Your task to perform on an android device: make emails show in primary in the gmail app Image 0: 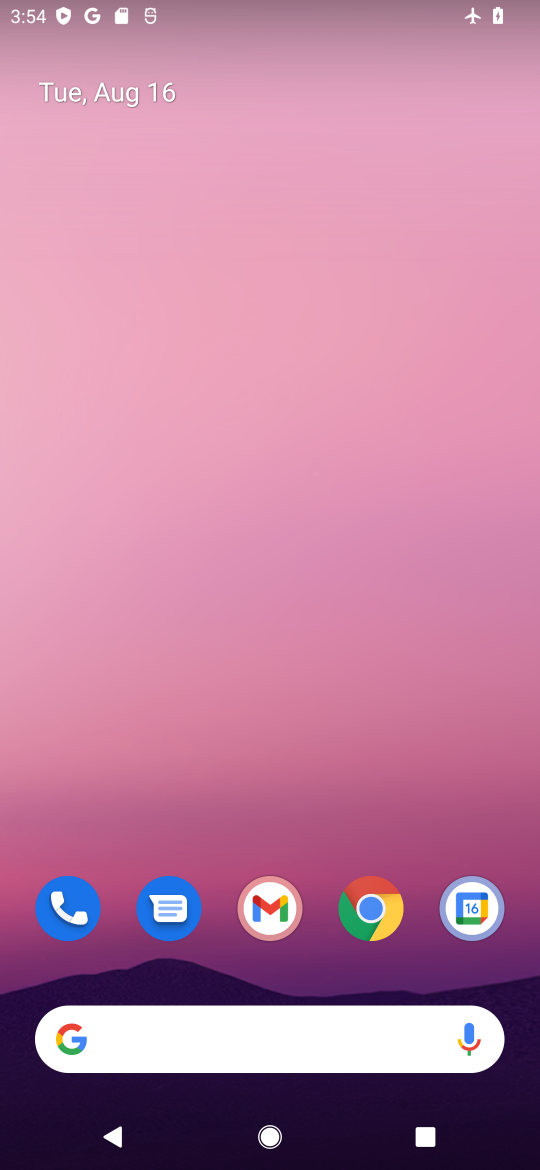
Step 0: click (283, 898)
Your task to perform on an android device: make emails show in primary in the gmail app Image 1: 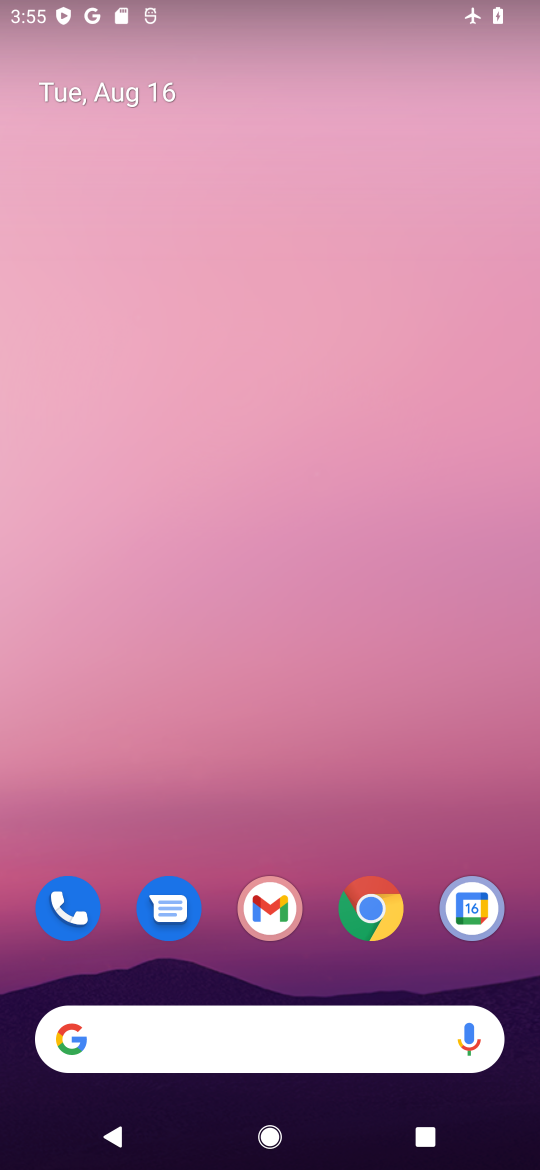
Step 1: click (282, 918)
Your task to perform on an android device: make emails show in primary in the gmail app Image 2: 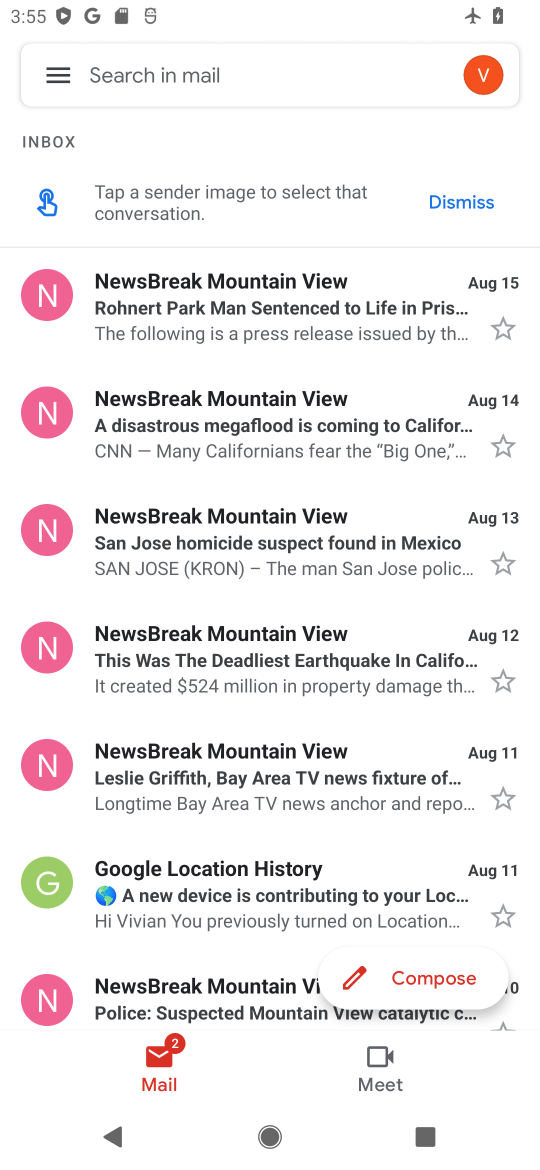
Step 2: click (56, 67)
Your task to perform on an android device: make emails show in primary in the gmail app Image 3: 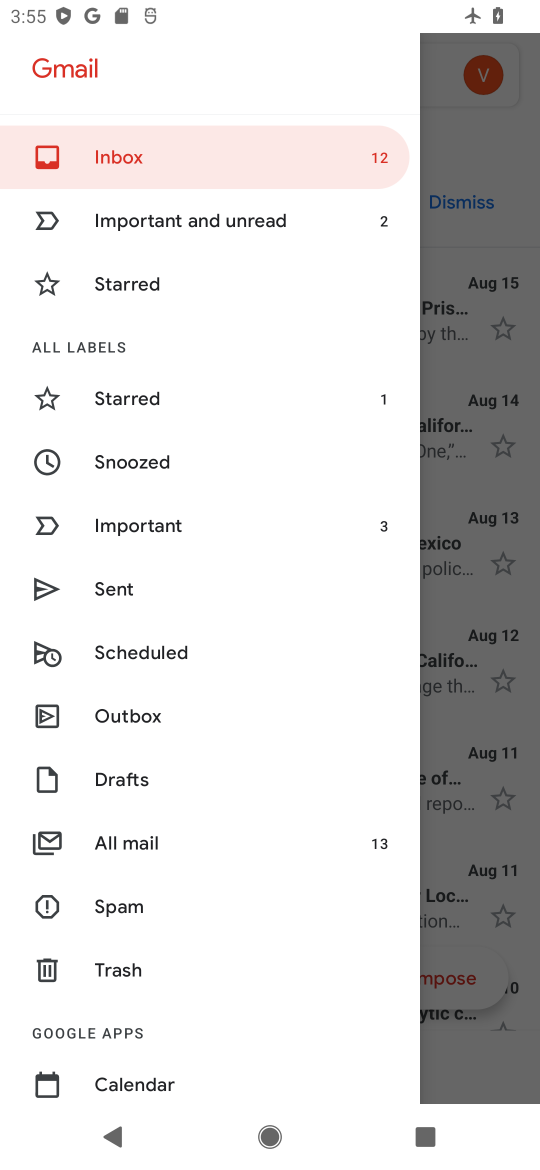
Step 3: drag from (203, 915) to (370, 99)
Your task to perform on an android device: make emails show in primary in the gmail app Image 4: 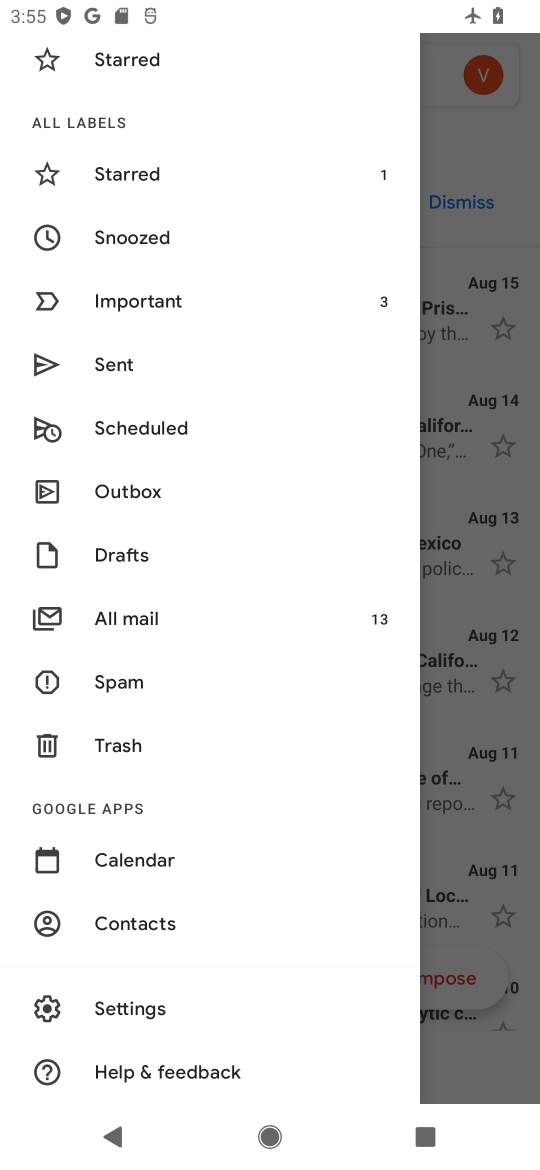
Step 4: click (164, 1006)
Your task to perform on an android device: make emails show in primary in the gmail app Image 5: 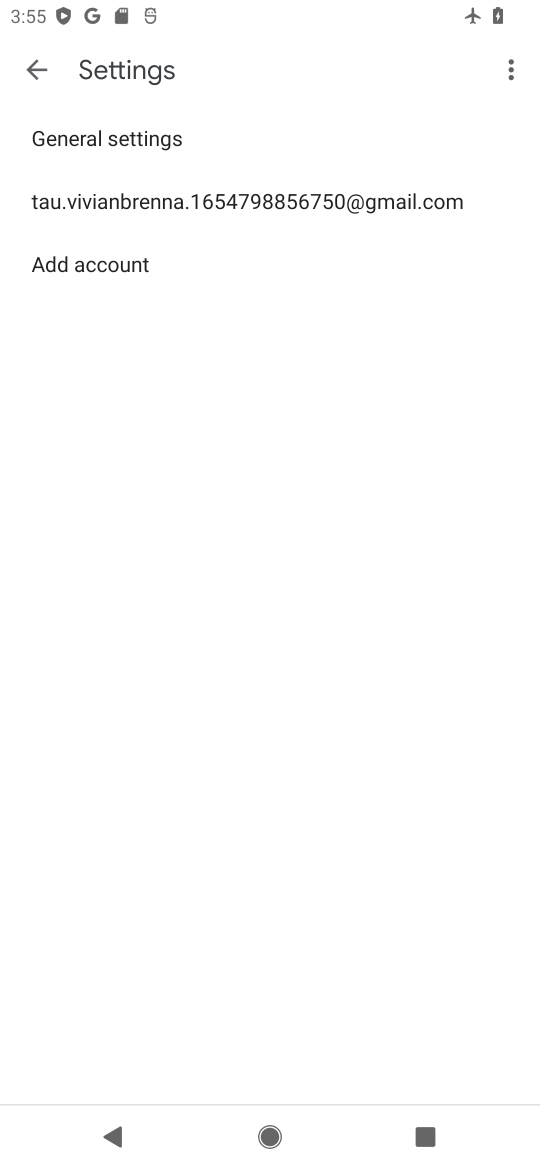
Step 5: click (224, 203)
Your task to perform on an android device: make emails show in primary in the gmail app Image 6: 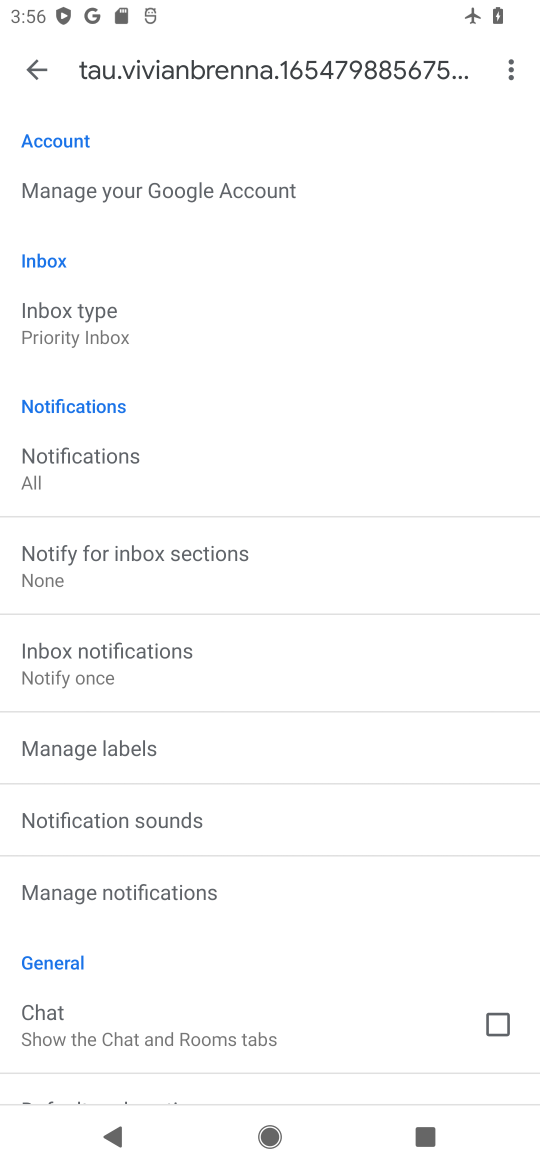
Step 6: task complete